Your task to perform on an android device: open wifi settings Image 0: 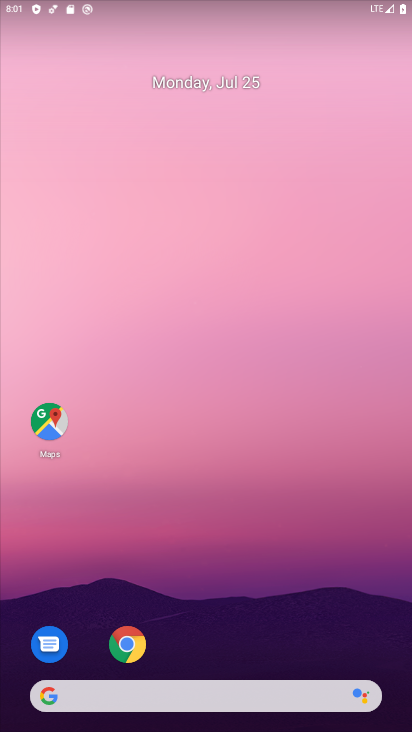
Step 0: drag from (194, 640) to (209, 35)
Your task to perform on an android device: open wifi settings Image 1: 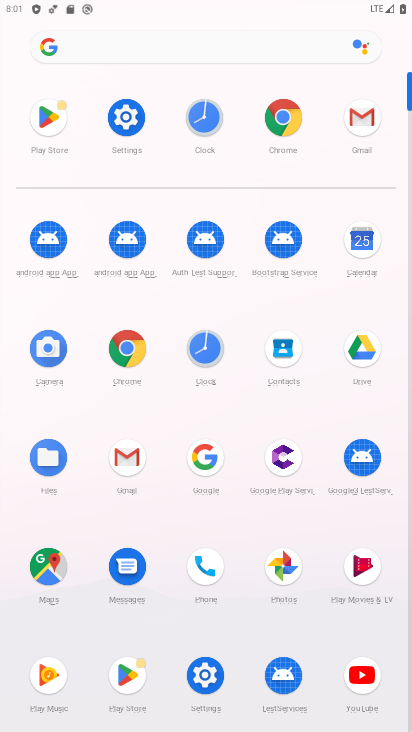
Step 1: click (122, 114)
Your task to perform on an android device: open wifi settings Image 2: 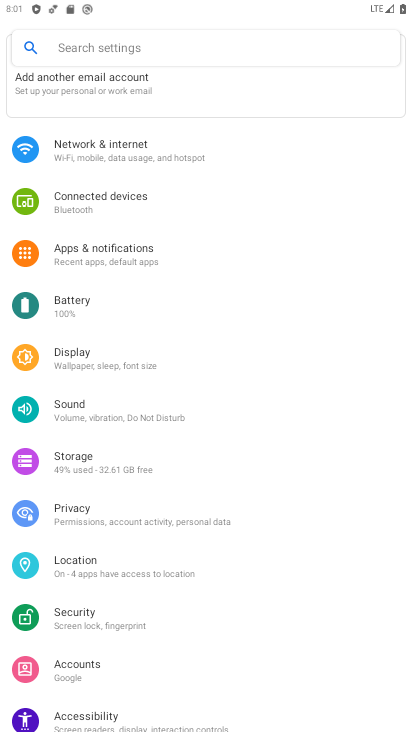
Step 2: click (91, 154)
Your task to perform on an android device: open wifi settings Image 3: 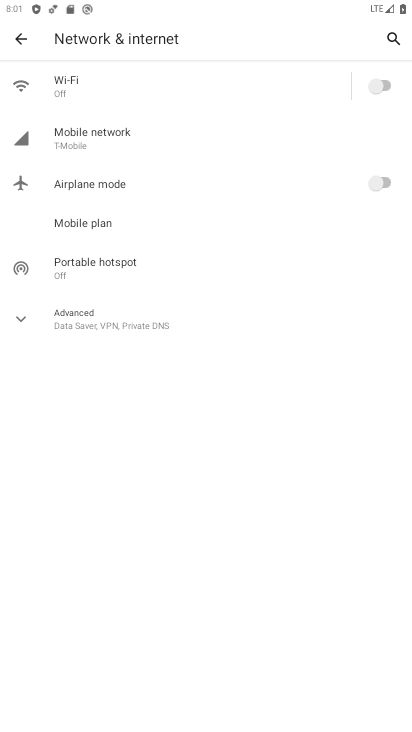
Step 3: click (121, 88)
Your task to perform on an android device: open wifi settings Image 4: 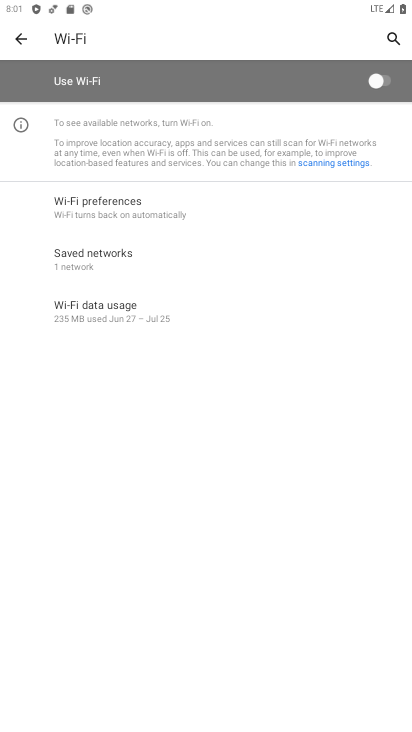
Step 4: task complete